Your task to perform on an android device: see creations saved in the google photos Image 0: 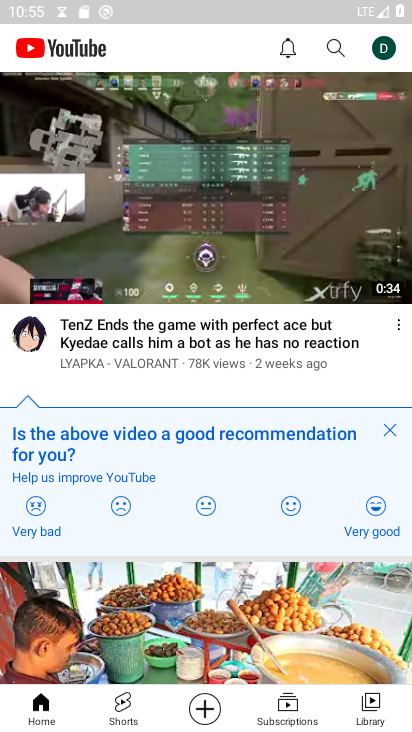
Step 0: drag from (214, 540) to (269, 288)
Your task to perform on an android device: see creations saved in the google photos Image 1: 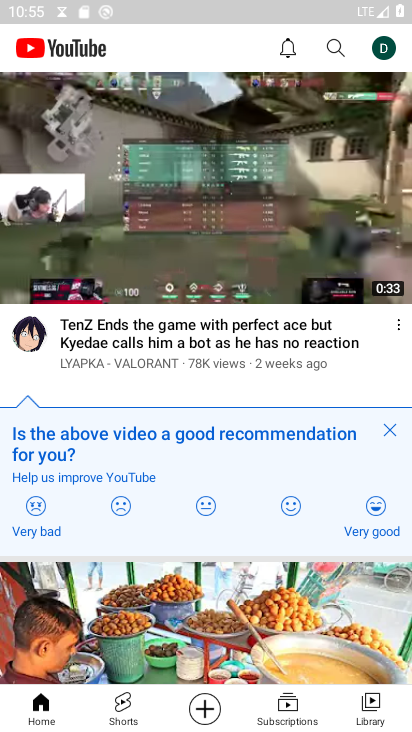
Step 1: drag from (257, 439) to (368, 728)
Your task to perform on an android device: see creations saved in the google photos Image 2: 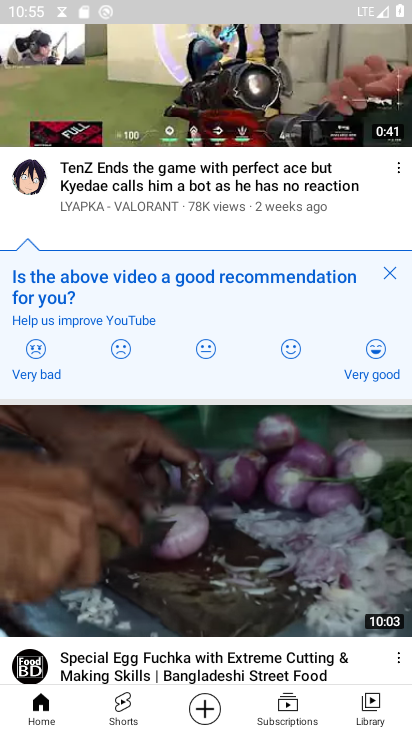
Step 2: press home button
Your task to perform on an android device: see creations saved in the google photos Image 3: 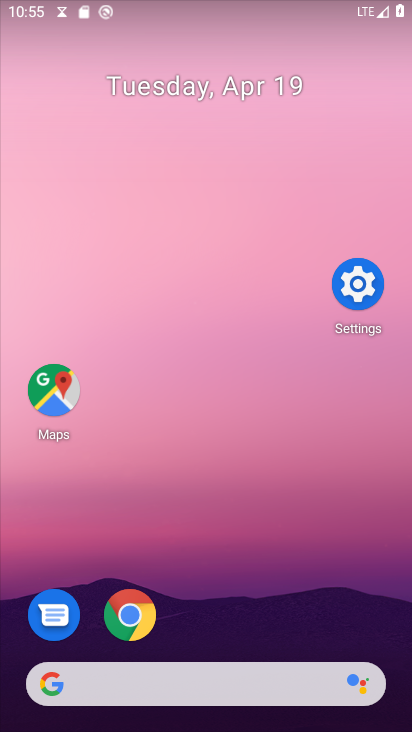
Step 3: drag from (216, 580) to (290, 132)
Your task to perform on an android device: see creations saved in the google photos Image 4: 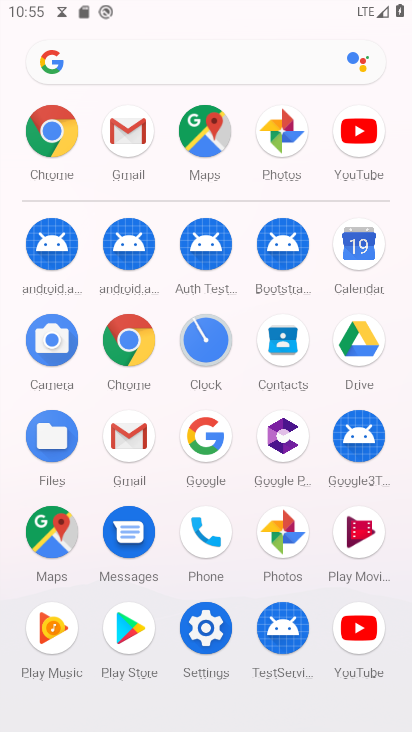
Step 4: click (293, 539)
Your task to perform on an android device: see creations saved in the google photos Image 5: 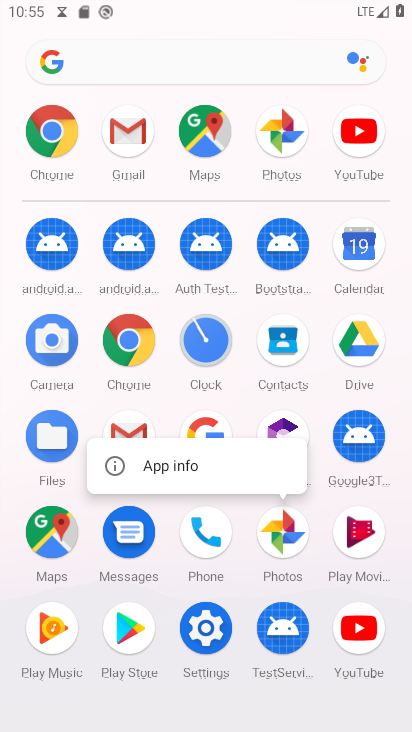
Step 5: click (200, 472)
Your task to perform on an android device: see creations saved in the google photos Image 6: 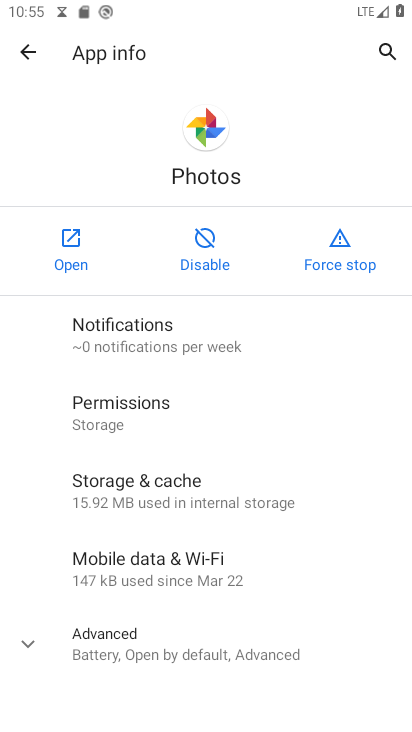
Step 6: click (58, 257)
Your task to perform on an android device: see creations saved in the google photos Image 7: 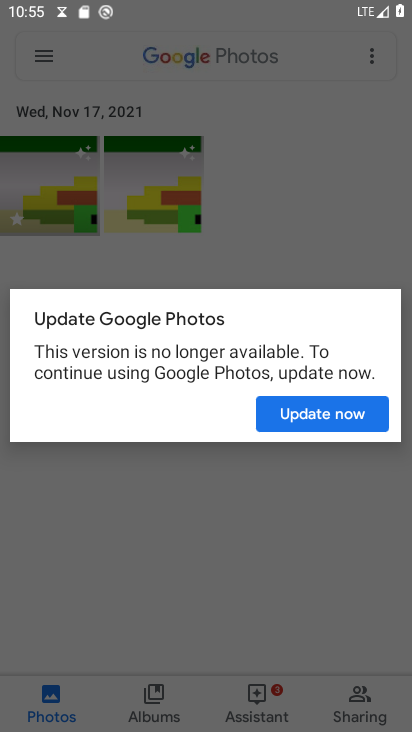
Step 7: click (307, 411)
Your task to perform on an android device: see creations saved in the google photos Image 8: 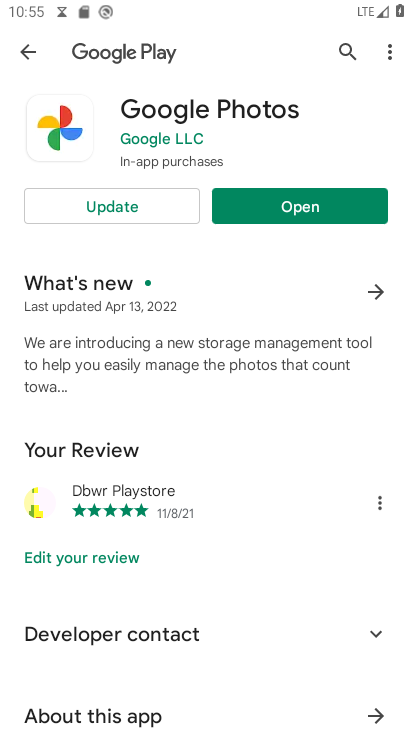
Step 8: click (109, 202)
Your task to perform on an android device: see creations saved in the google photos Image 9: 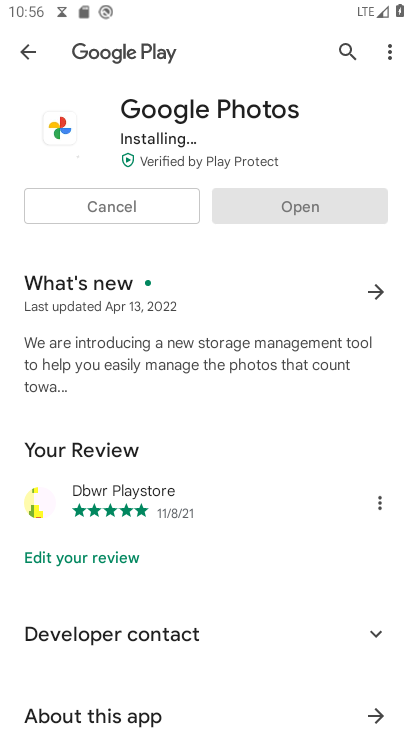
Step 9: drag from (250, 621) to (256, 197)
Your task to perform on an android device: see creations saved in the google photos Image 10: 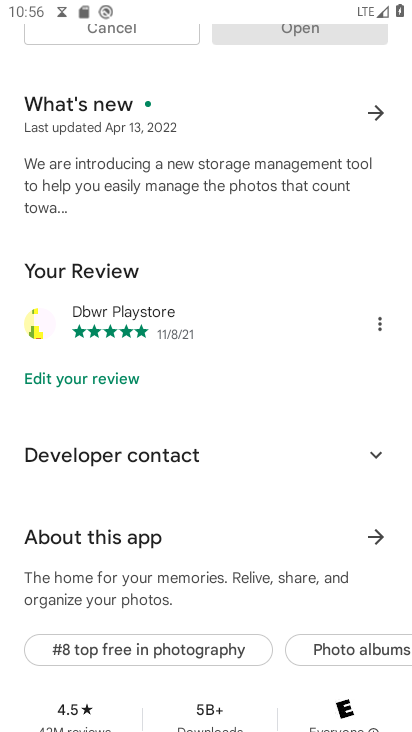
Step 10: drag from (223, 578) to (309, 218)
Your task to perform on an android device: see creations saved in the google photos Image 11: 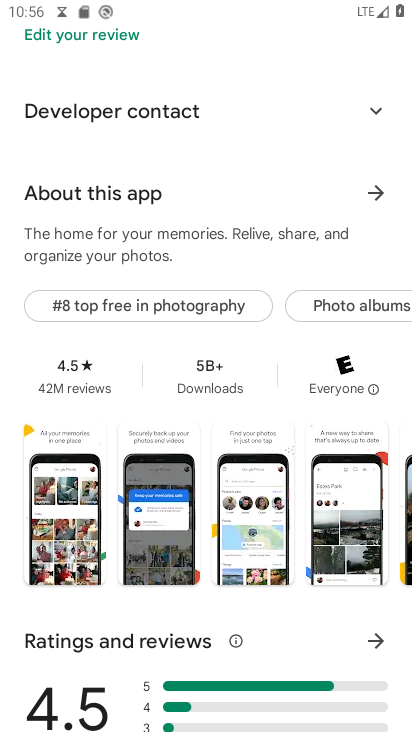
Step 11: drag from (261, 118) to (282, 705)
Your task to perform on an android device: see creations saved in the google photos Image 12: 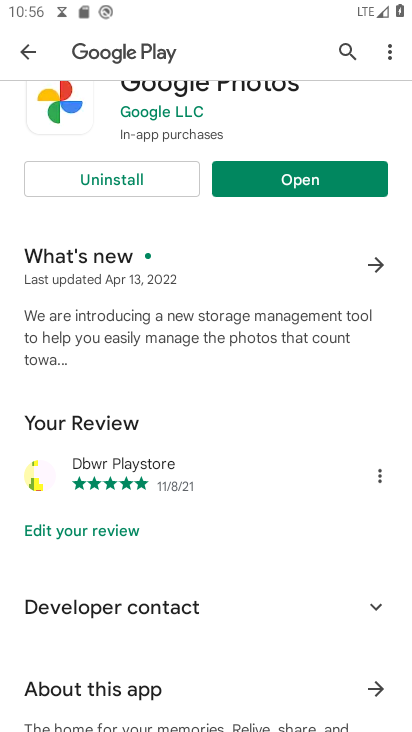
Step 12: click (295, 189)
Your task to perform on an android device: see creations saved in the google photos Image 13: 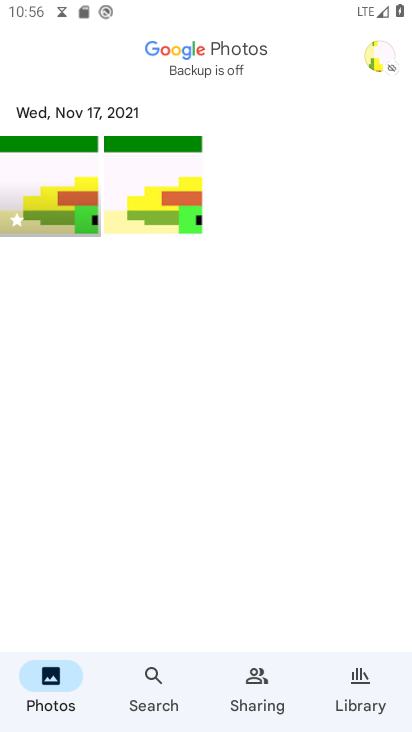
Step 13: drag from (223, 350) to (248, 698)
Your task to perform on an android device: see creations saved in the google photos Image 14: 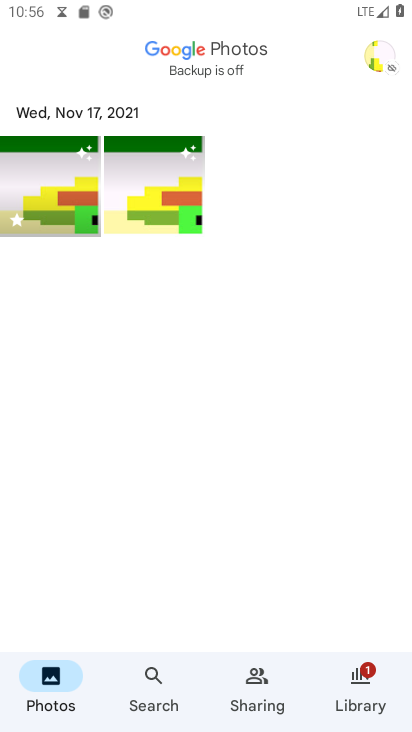
Step 14: click (164, 683)
Your task to perform on an android device: see creations saved in the google photos Image 15: 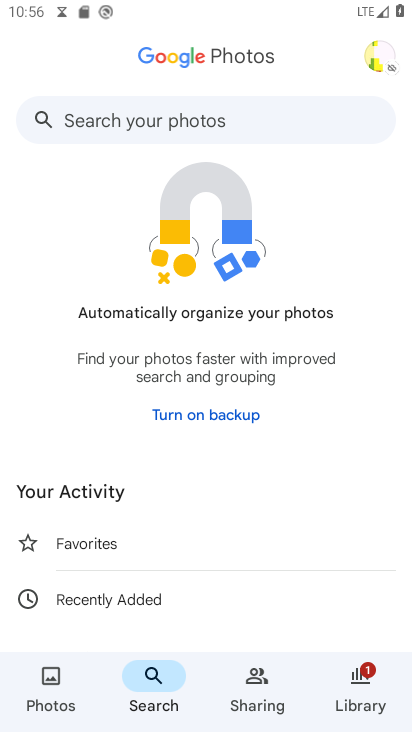
Step 15: click (179, 121)
Your task to perform on an android device: see creations saved in the google photos Image 16: 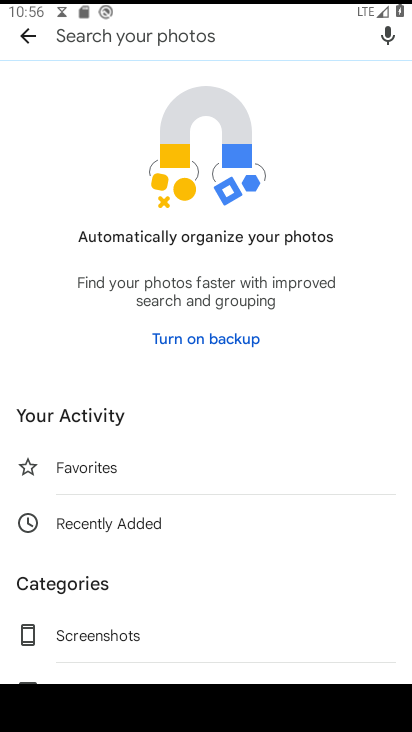
Step 16: drag from (141, 552) to (295, 173)
Your task to perform on an android device: see creations saved in the google photos Image 17: 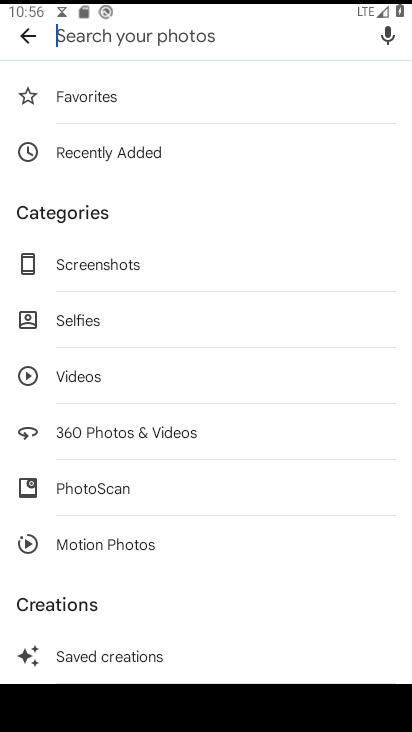
Step 17: drag from (125, 564) to (313, 65)
Your task to perform on an android device: see creations saved in the google photos Image 18: 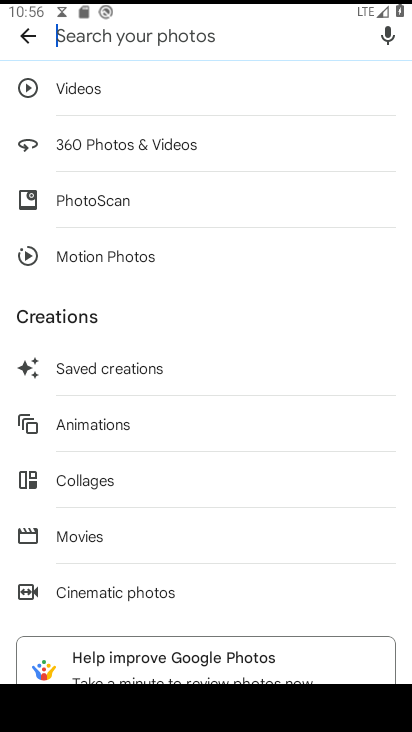
Step 18: click (106, 372)
Your task to perform on an android device: see creations saved in the google photos Image 19: 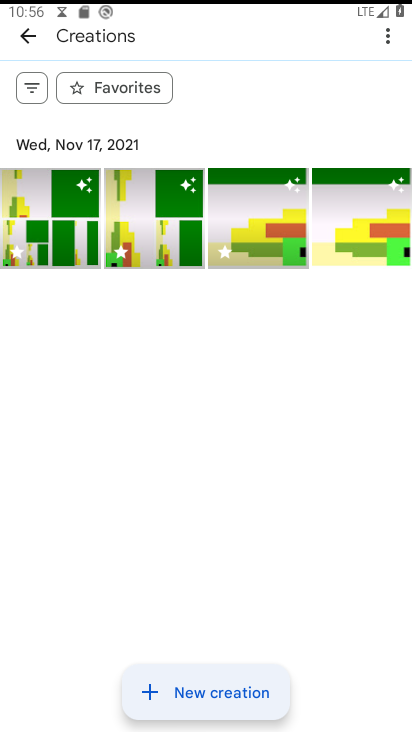
Step 19: click (157, 211)
Your task to perform on an android device: see creations saved in the google photos Image 20: 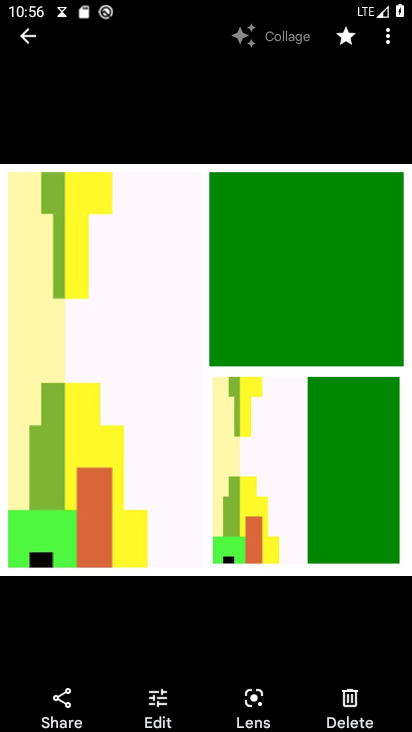
Step 20: task complete